Your task to perform on an android device: delete a single message in the gmail app Image 0: 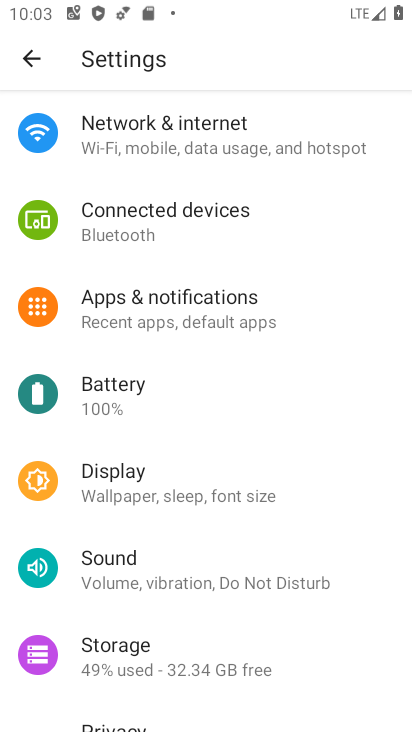
Step 0: press home button
Your task to perform on an android device: delete a single message in the gmail app Image 1: 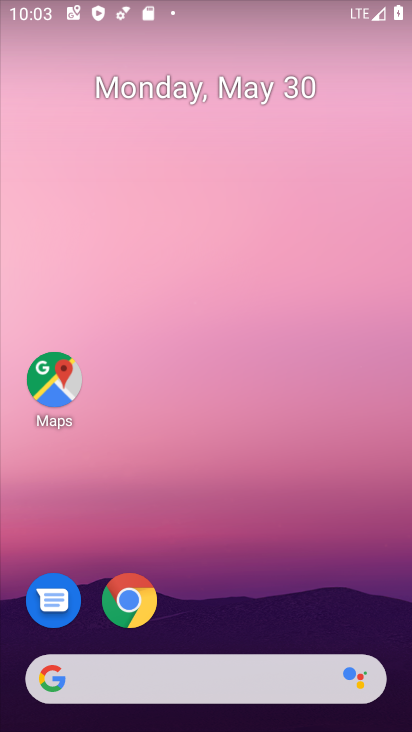
Step 1: drag from (254, 603) to (232, 178)
Your task to perform on an android device: delete a single message in the gmail app Image 2: 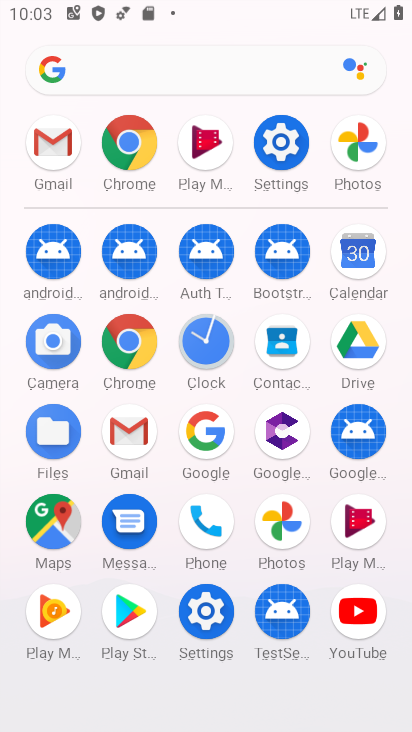
Step 2: click (54, 147)
Your task to perform on an android device: delete a single message in the gmail app Image 3: 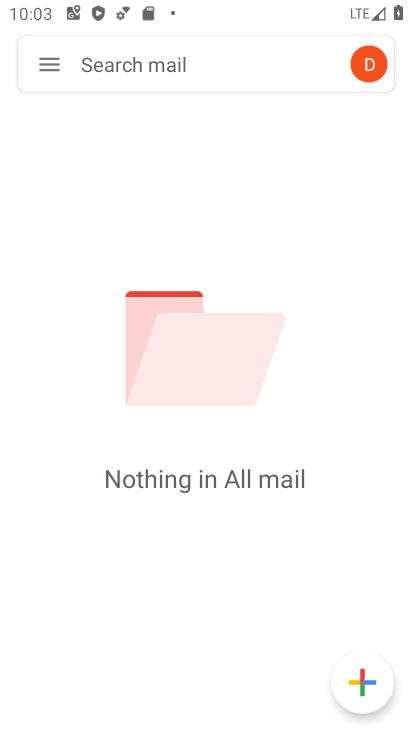
Step 3: task complete